Your task to perform on an android device: Go to Android settings Image 0: 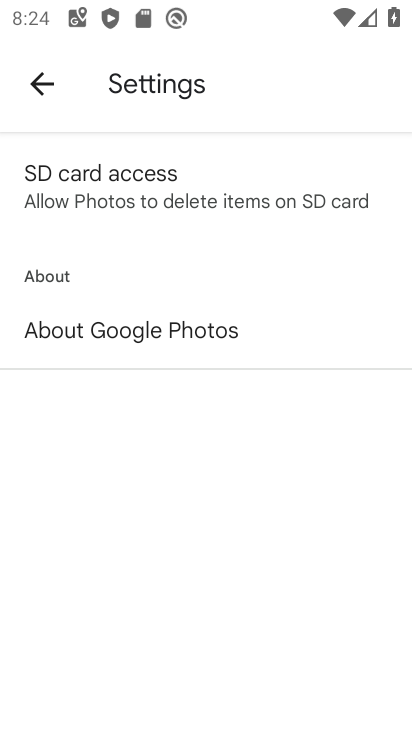
Step 0: press home button
Your task to perform on an android device: Go to Android settings Image 1: 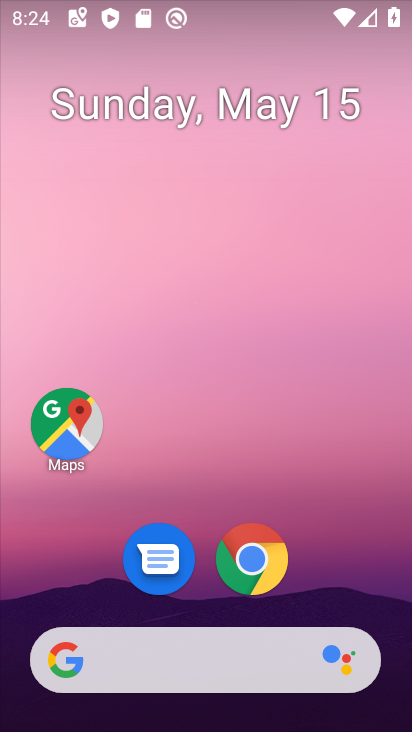
Step 1: drag from (317, 572) to (282, 128)
Your task to perform on an android device: Go to Android settings Image 2: 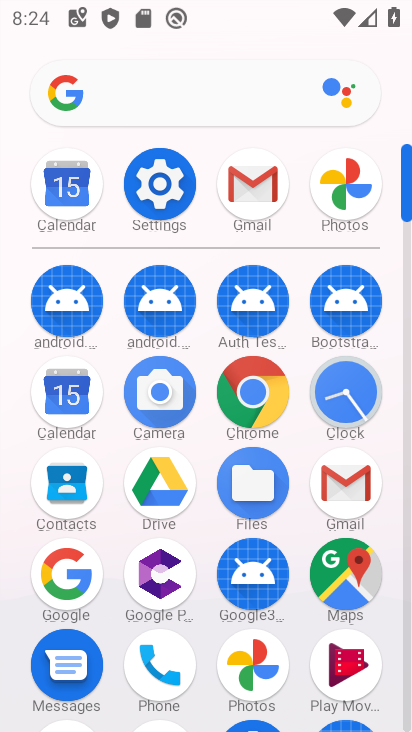
Step 2: click (178, 179)
Your task to perform on an android device: Go to Android settings Image 3: 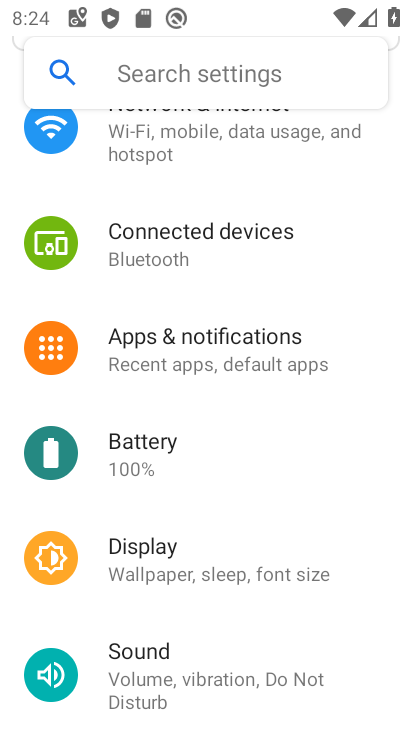
Step 3: drag from (167, 590) to (231, 108)
Your task to perform on an android device: Go to Android settings Image 4: 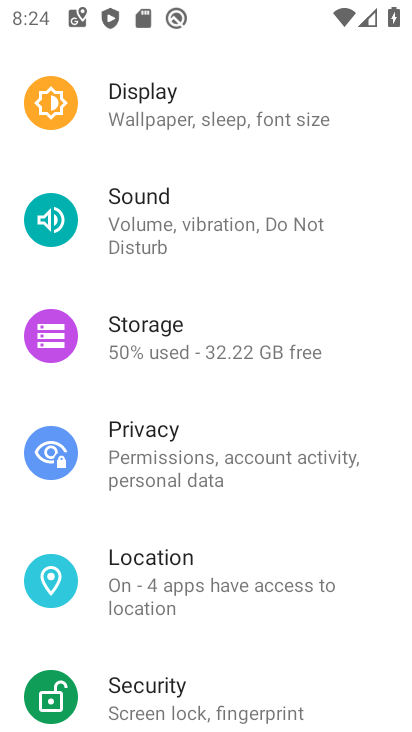
Step 4: drag from (226, 651) to (262, 230)
Your task to perform on an android device: Go to Android settings Image 5: 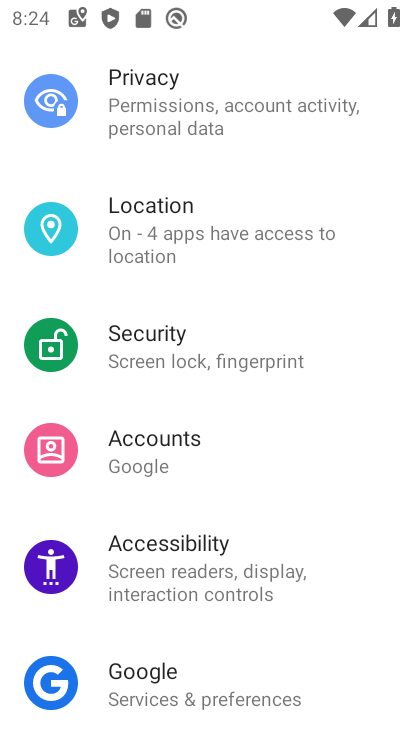
Step 5: drag from (194, 639) to (193, 350)
Your task to perform on an android device: Go to Android settings Image 6: 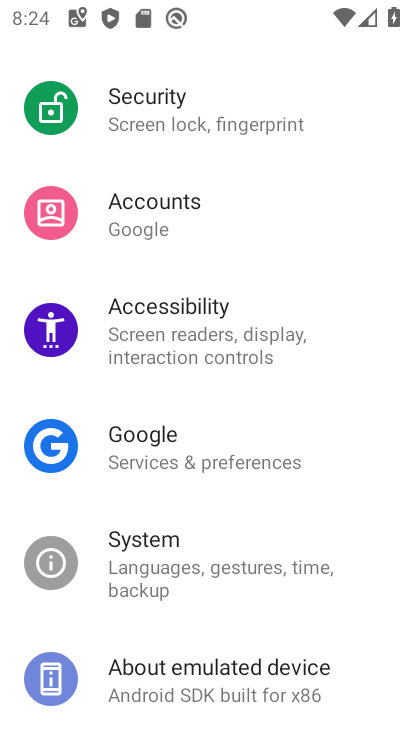
Step 6: drag from (196, 689) to (235, 358)
Your task to perform on an android device: Go to Android settings Image 7: 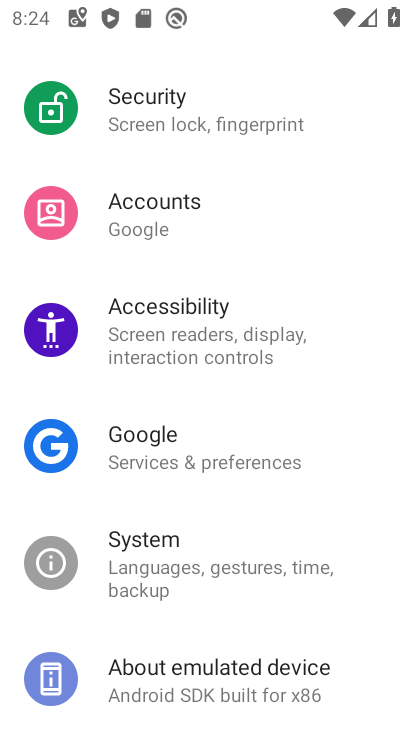
Step 7: click (233, 700)
Your task to perform on an android device: Go to Android settings Image 8: 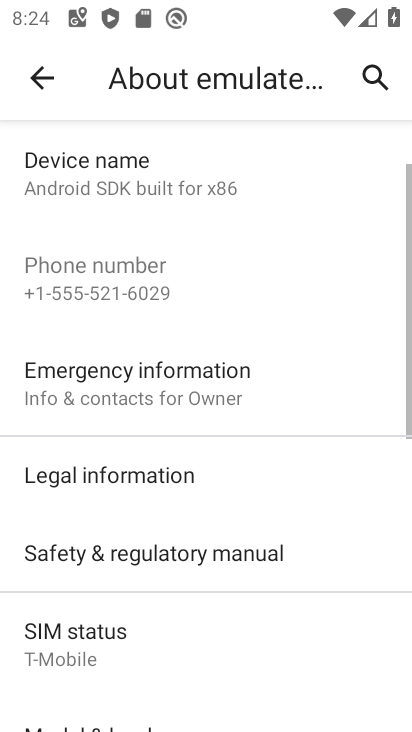
Step 8: task complete